Your task to perform on an android device: turn notification dots off Image 0: 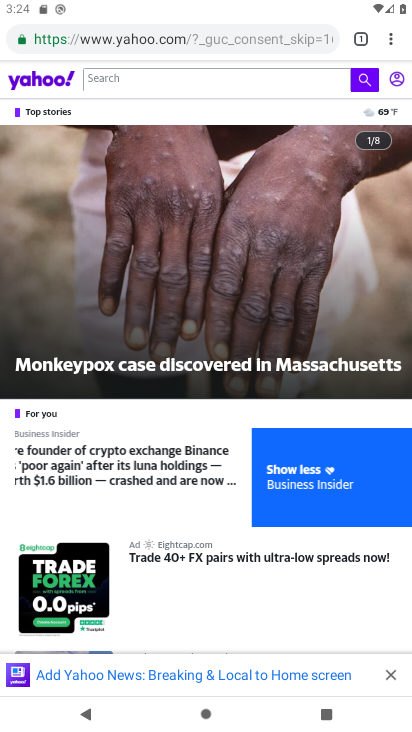
Step 0: press home button
Your task to perform on an android device: turn notification dots off Image 1: 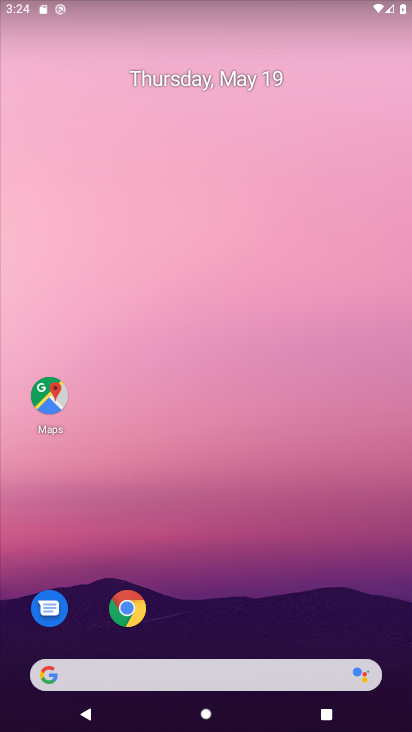
Step 1: drag from (213, 662) to (211, 219)
Your task to perform on an android device: turn notification dots off Image 2: 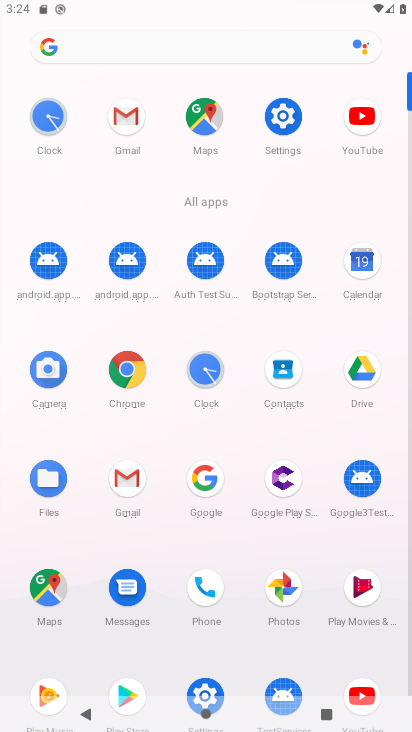
Step 2: click (276, 118)
Your task to perform on an android device: turn notification dots off Image 3: 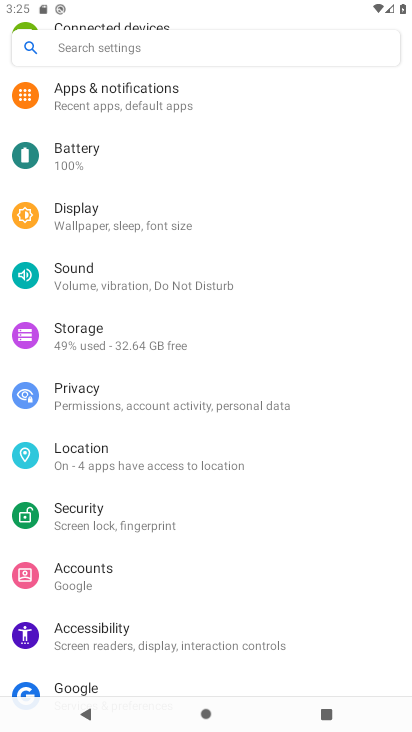
Step 3: click (81, 99)
Your task to perform on an android device: turn notification dots off Image 4: 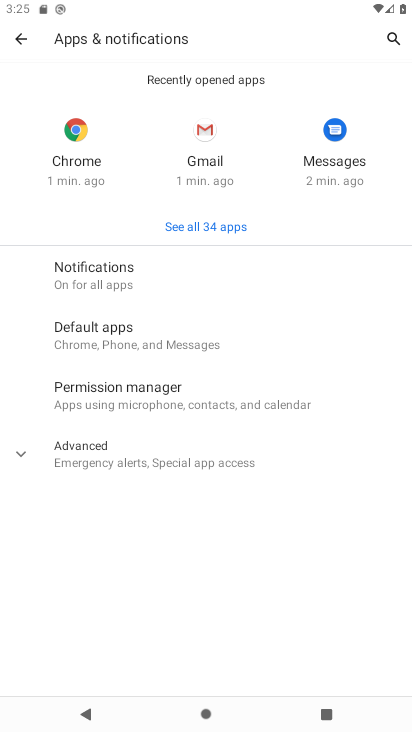
Step 4: click (99, 283)
Your task to perform on an android device: turn notification dots off Image 5: 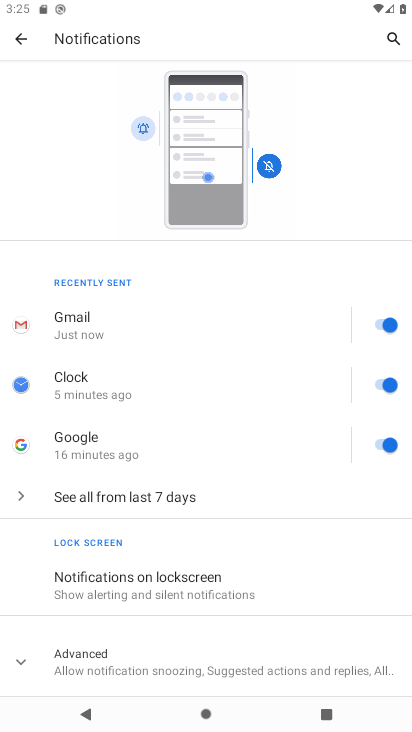
Step 5: drag from (134, 631) to (157, 230)
Your task to perform on an android device: turn notification dots off Image 6: 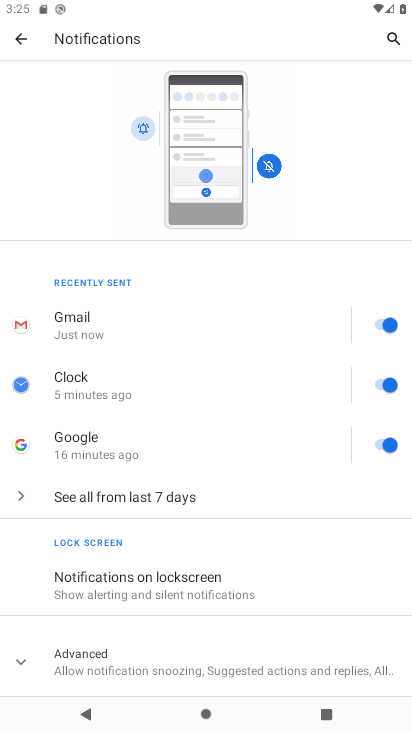
Step 6: click (107, 660)
Your task to perform on an android device: turn notification dots off Image 7: 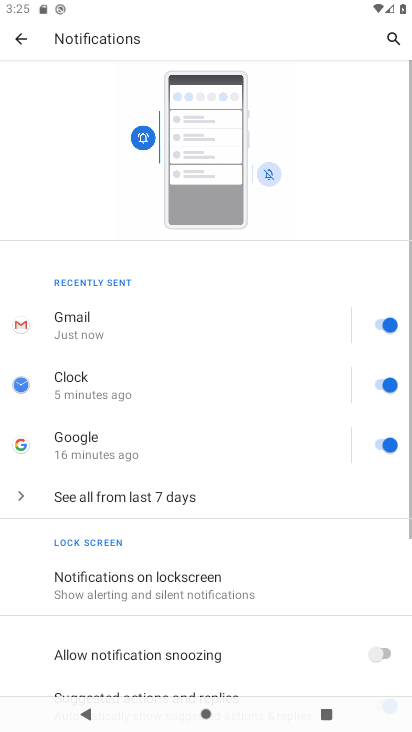
Step 7: drag from (188, 688) to (219, 283)
Your task to perform on an android device: turn notification dots off Image 8: 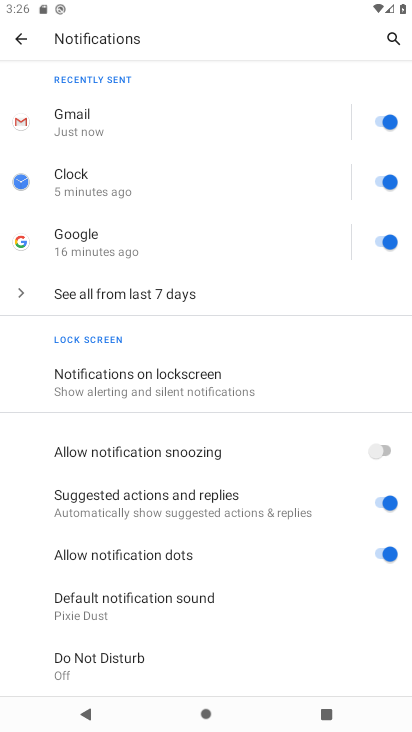
Step 8: click (378, 550)
Your task to perform on an android device: turn notification dots off Image 9: 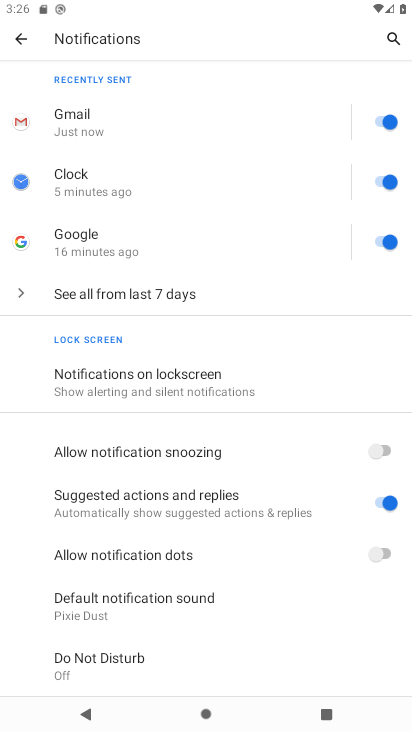
Step 9: task complete